Your task to perform on an android device: toggle show notifications on the lock screen Image 0: 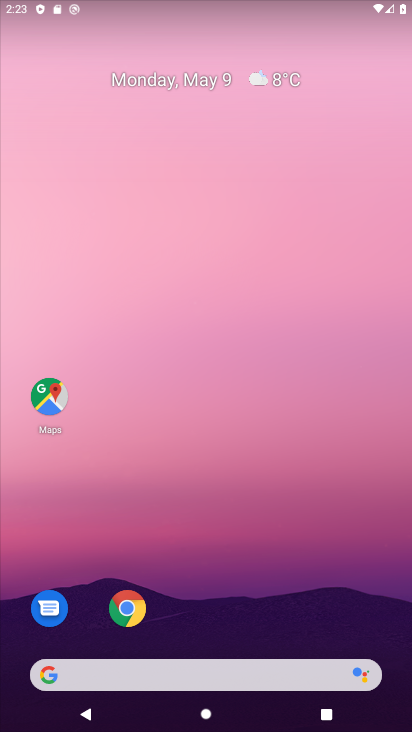
Step 0: drag from (200, 624) to (188, 216)
Your task to perform on an android device: toggle show notifications on the lock screen Image 1: 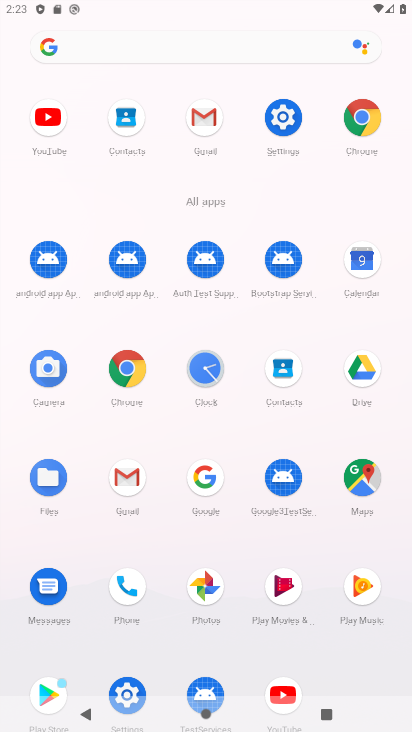
Step 1: click (298, 128)
Your task to perform on an android device: toggle show notifications on the lock screen Image 2: 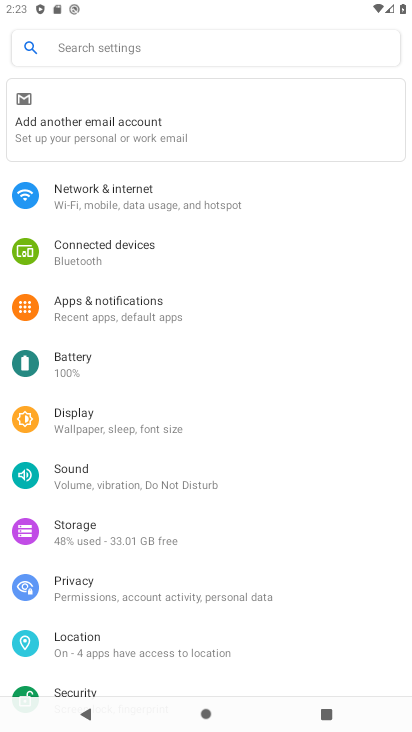
Step 2: click (170, 309)
Your task to perform on an android device: toggle show notifications on the lock screen Image 3: 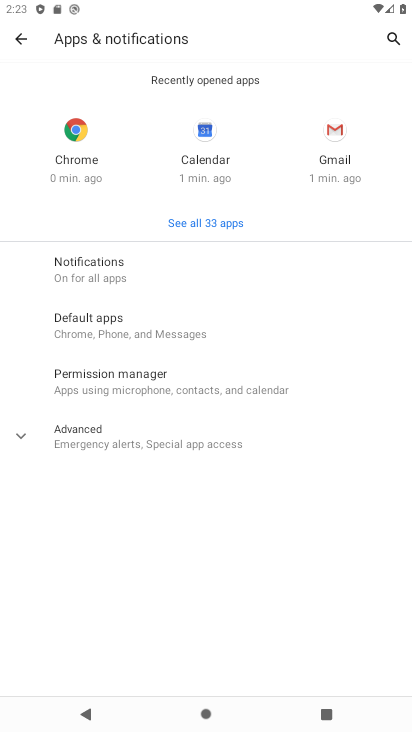
Step 3: click (149, 281)
Your task to perform on an android device: toggle show notifications on the lock screen Image 4: 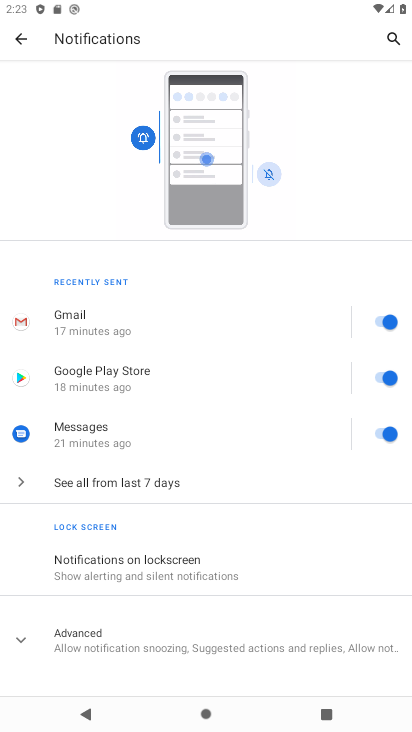
Step 4: click (232, 568)
Your task to perform on an android device: toggle show notifications on the lock screen Image 5: 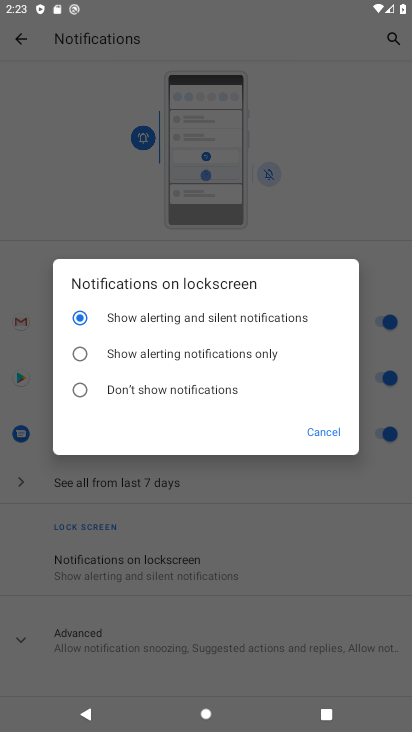
Step 5: click (202, 353)
Your task to perform on an android device: toggle show notifications on the lock screen Image 6: 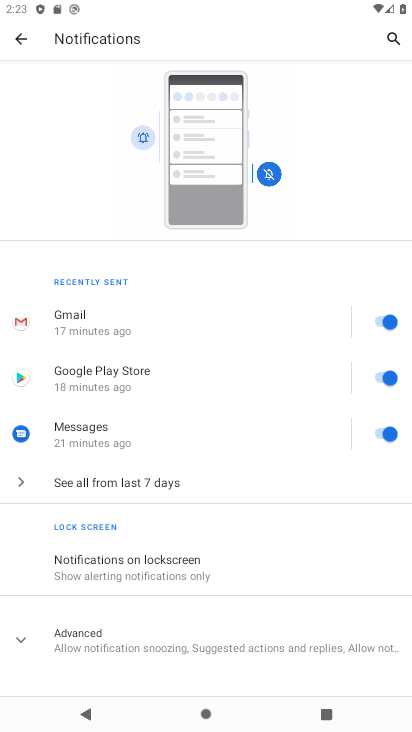
Step 6: task complete